Your task to perform on an android device: open app "Firefox Browser" Image 0: 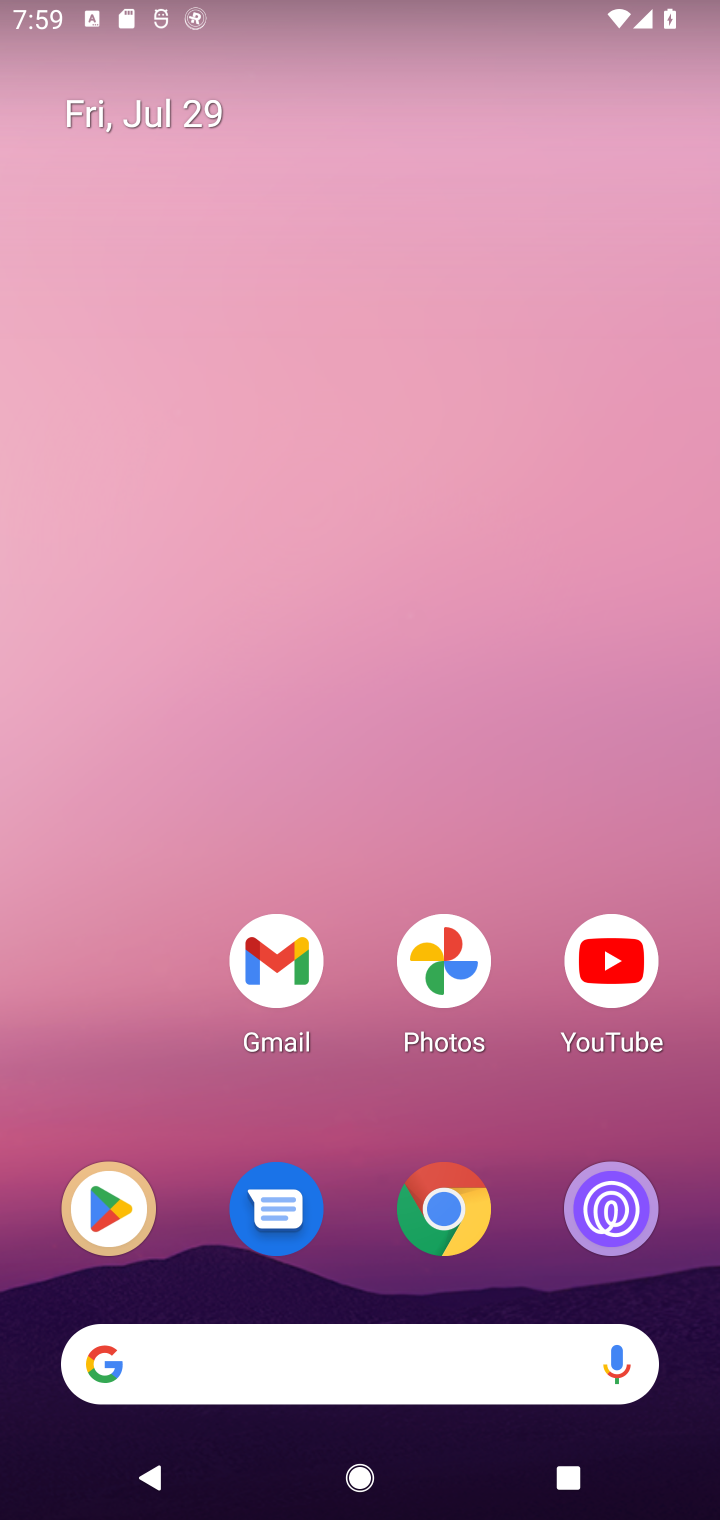
Step 0: click (111, 1211)
Your task to perform on an android device: open app "Firefox Browser" Image 1: 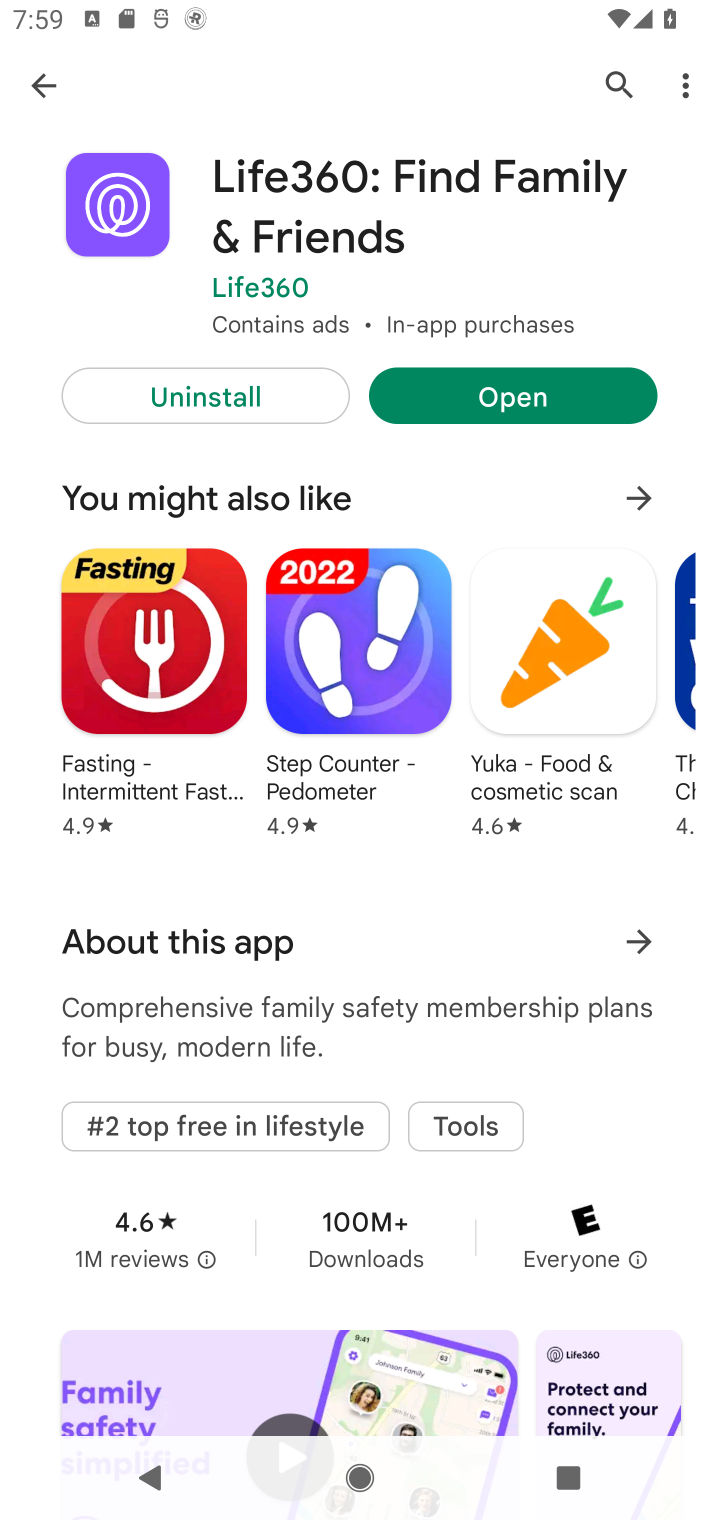
Step 1: click (624, 88)
Your task to perform on an android device: open app "Firefox Browser" Image 2: 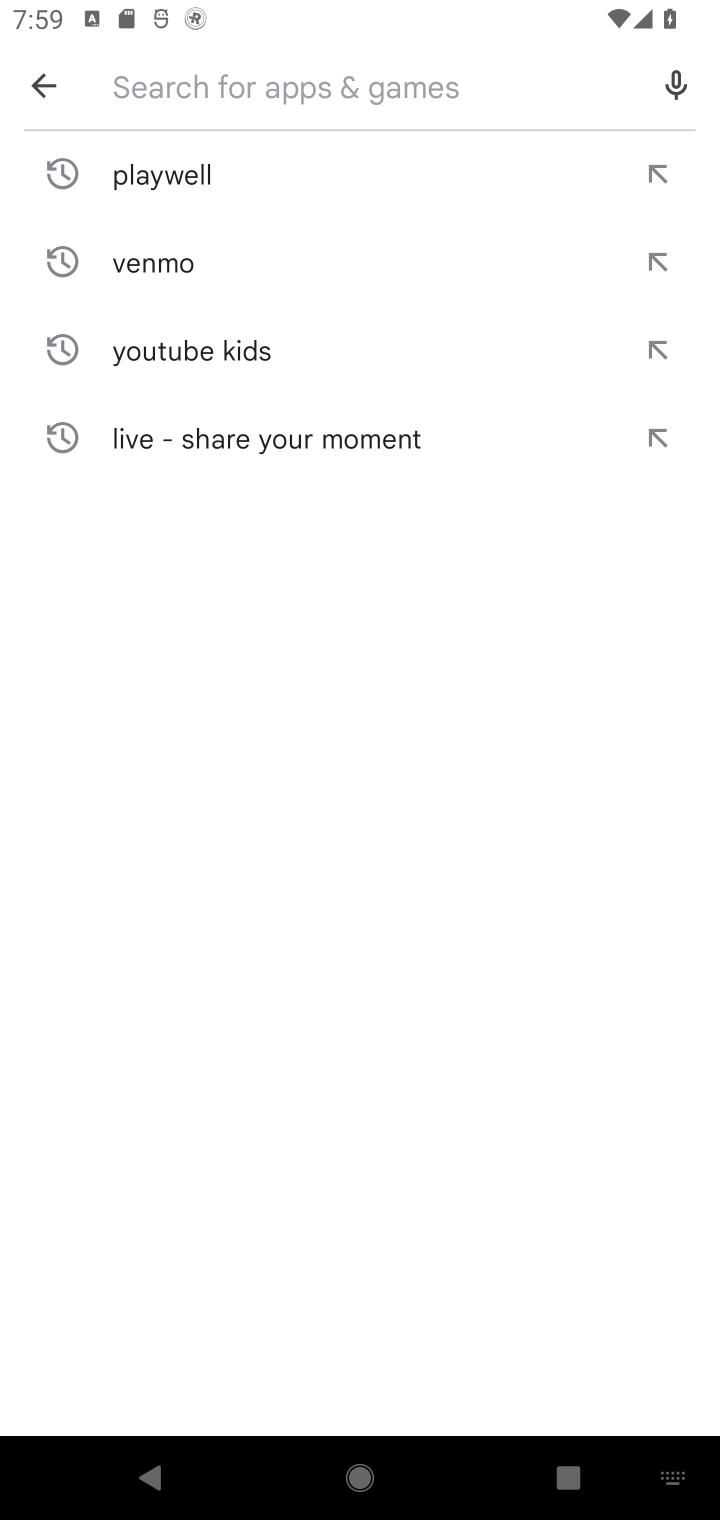
Step 2: type "Firefox Browser"
Your task to perform on an android device: open app "Firefox Browser" Image 3: 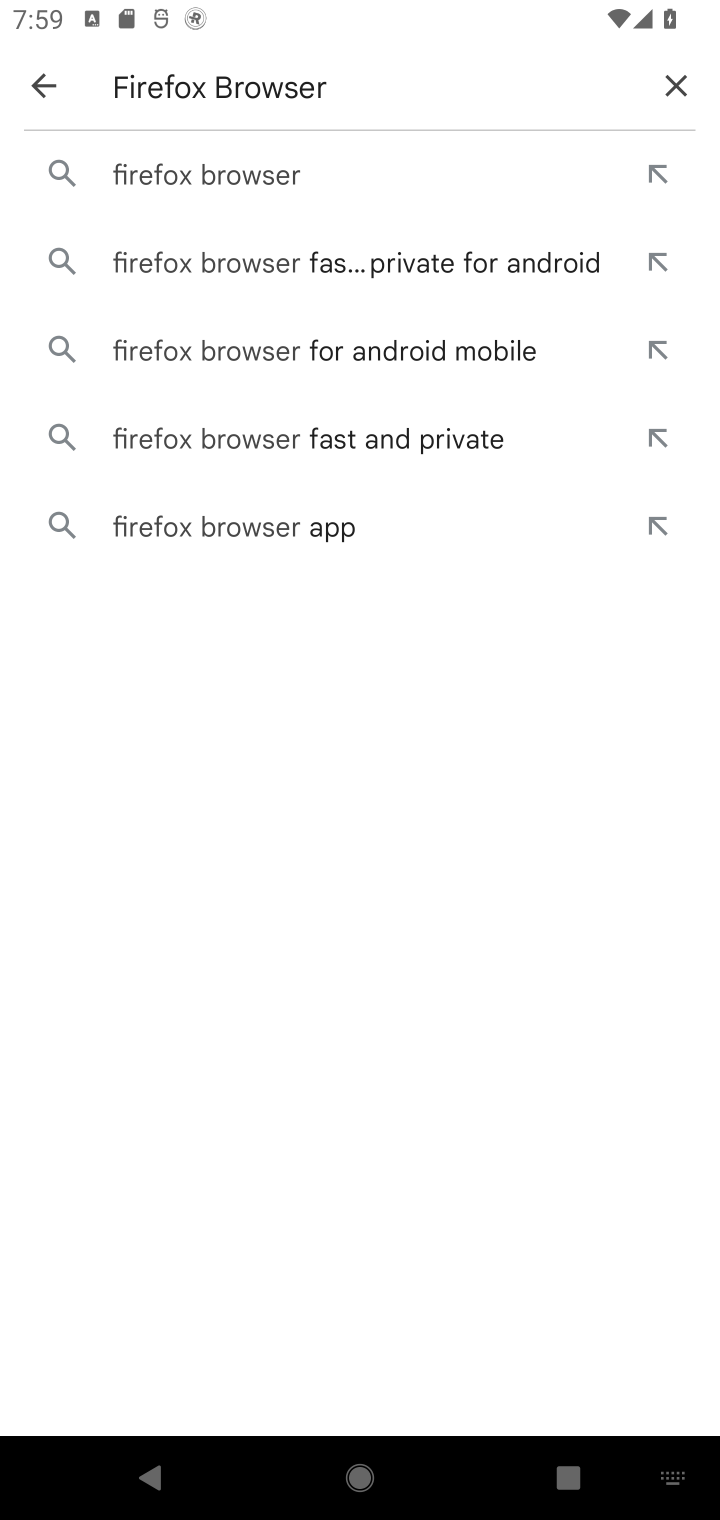
Step 3: click (221, 186)
Your task to perform on an android device: open app "Firefox Browser" Image 4: 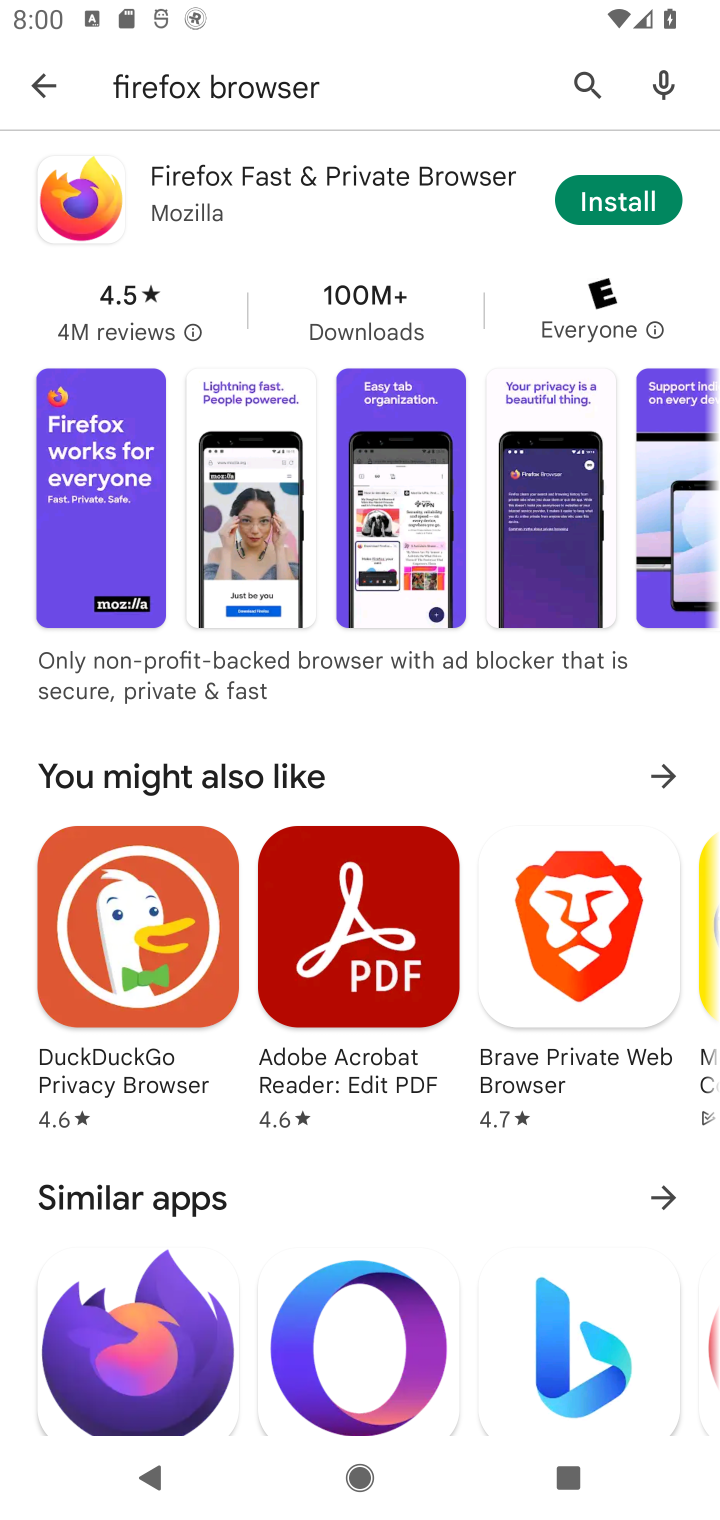
Step 4: task complete